Your task to perform on an android device: What's the weather going to be tomorrow? Image 0: 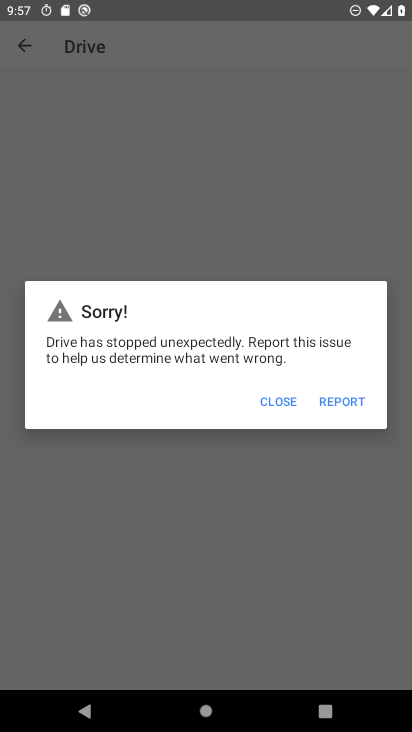
Step 0: press home button
Your task to perform on an android device: What's the weather going to be tomorrow? Image 1: 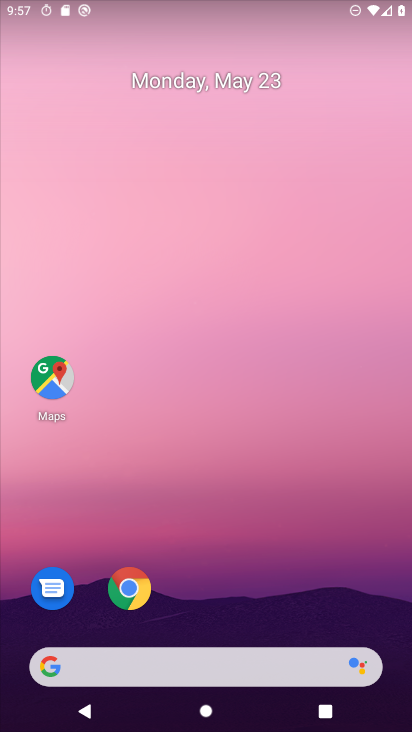
Step 1: drag from (79, 222) to (393, 223)
Your task to perform on an android device: What's the weather going to be tomorrow? Image 2: 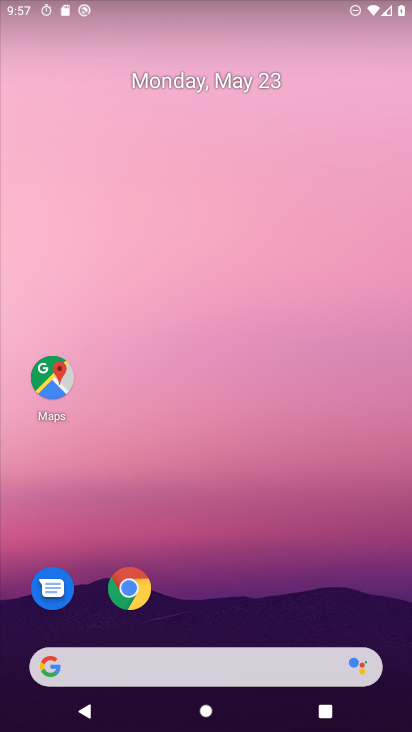
Step 2: drag from (1, 211) to (411, 254)
Your task to perform on an android device: What's the weather going to be tomorrow? Image 3: 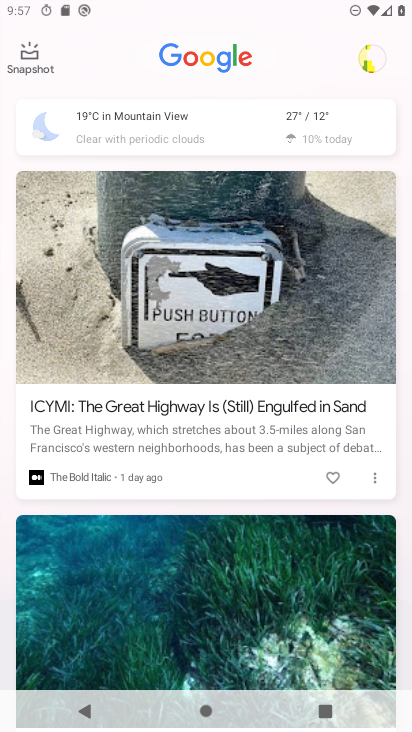
Step 3: click (292, 122)
Your task to perform on an android device: What's the weather going to be tomorrow? Image 4: 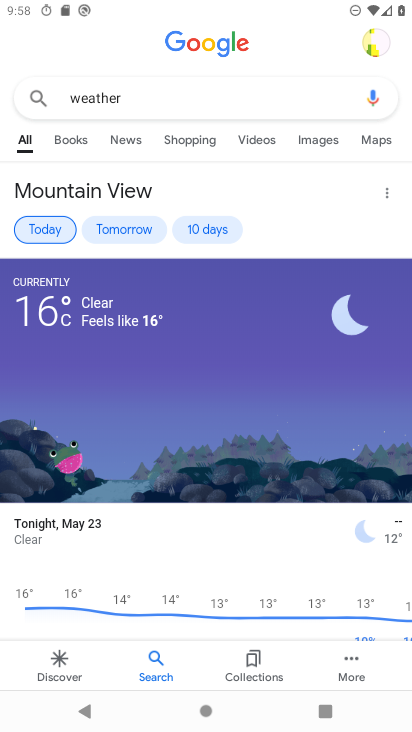
Step 4: click (133, 221)
Your task to perform on an android device: What's the weather going to be tomorrow? Image 5: 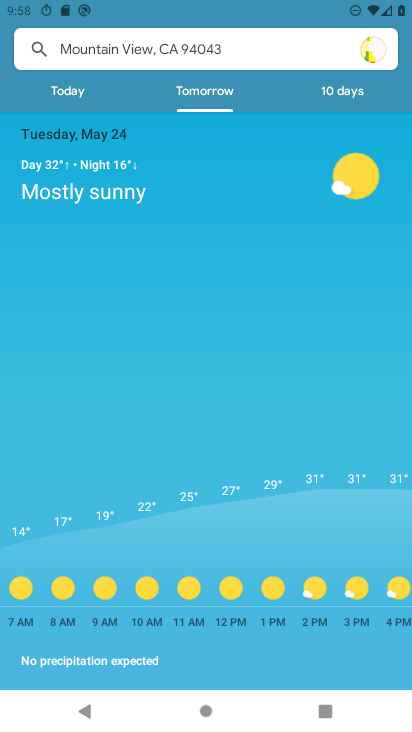
Step 5: task complete